Your task to perform on an android device: What's the weather going to be tomorrow? Image 0: 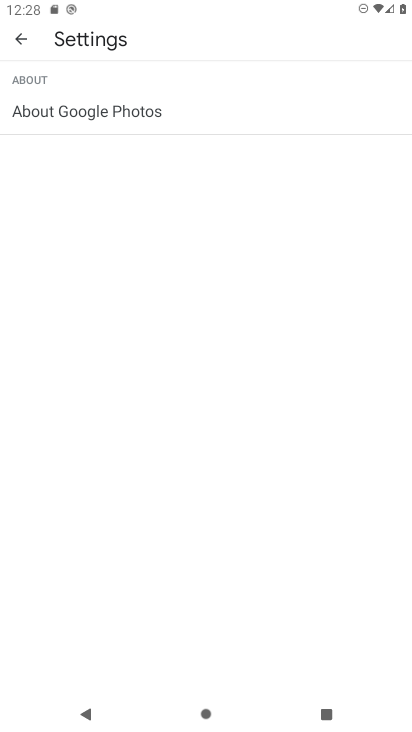
Step 0: press home button
Your task to perform on an android device: What's the weather going to be tomorrow? Image 1: 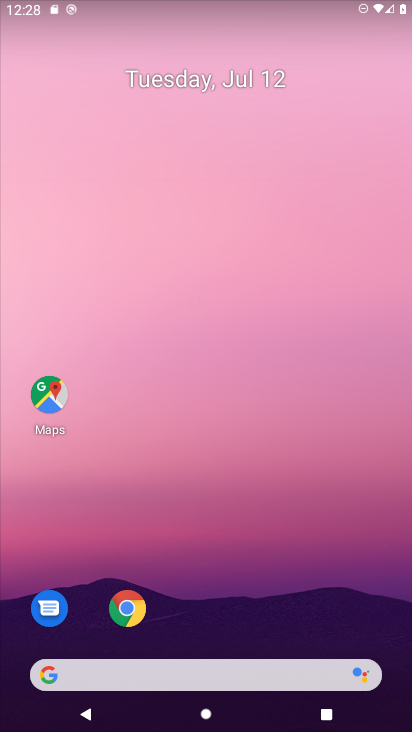
Step 1: click (198, 659)
Your task to perform on an android device: What's the weather going to be tomorrow? Image 2: 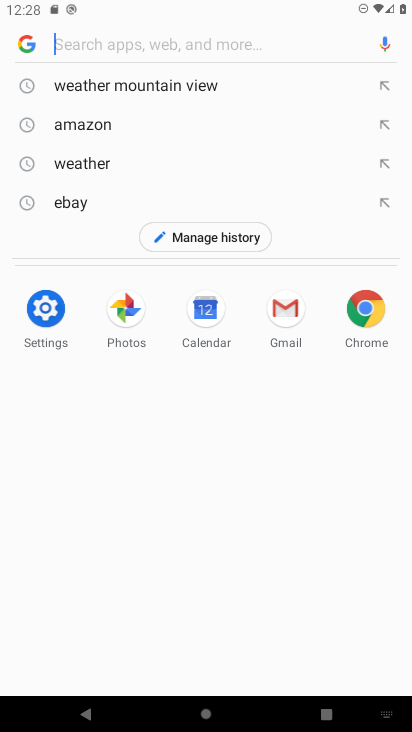
Step 2: click (64, 176)
Your task to perform on an android device: What's the weather going to be tomorrow? Image 3: 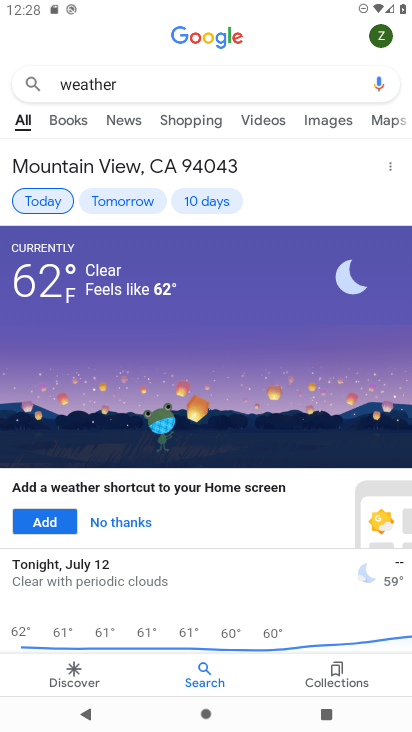
Step 3: click (121, 187)
Your task to perform on an android device: What's the weather going to be tomorrow? Image 4: 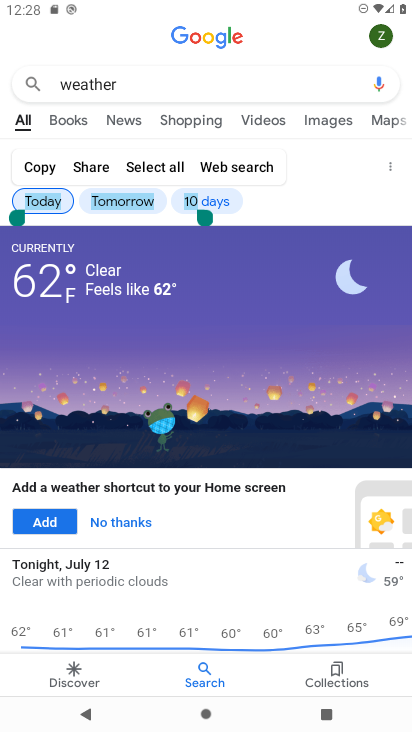
Step 4: click (141, 200)
Your task to perform on an android device: What's the weather going to be tomorrow? Image 5: 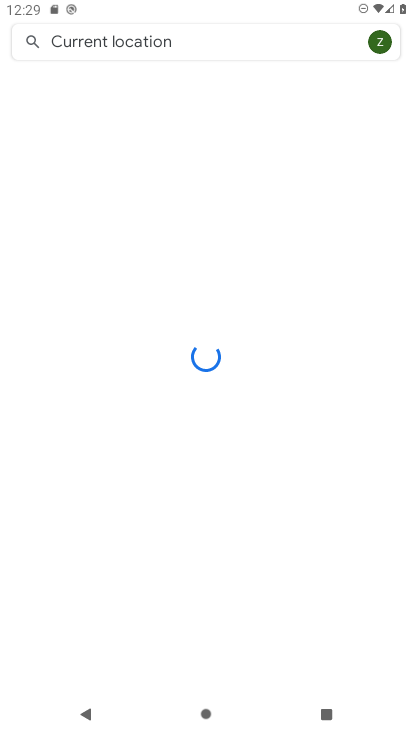
Step 5: task complete